Your task to perform on an android device: Open the stopwatch Image 0: 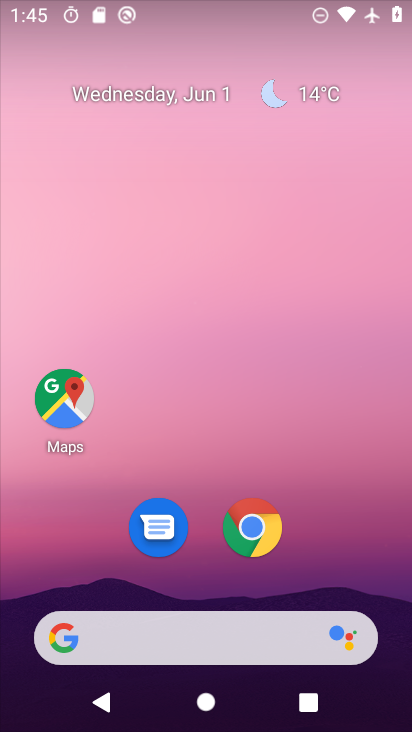
Step 0: drag from (170, 649) to (233, 106)
Your task to perform on an android device: Open the stopwatch Image 1: 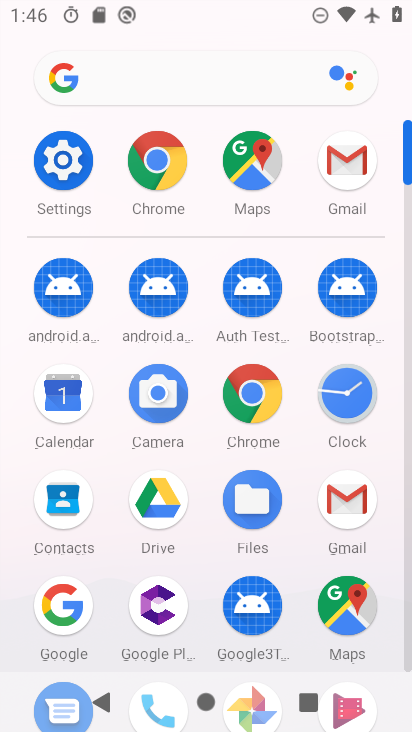
Step 1: click (332, 400)
Your task to perform on an android device: Open the stopwatch Image 2: 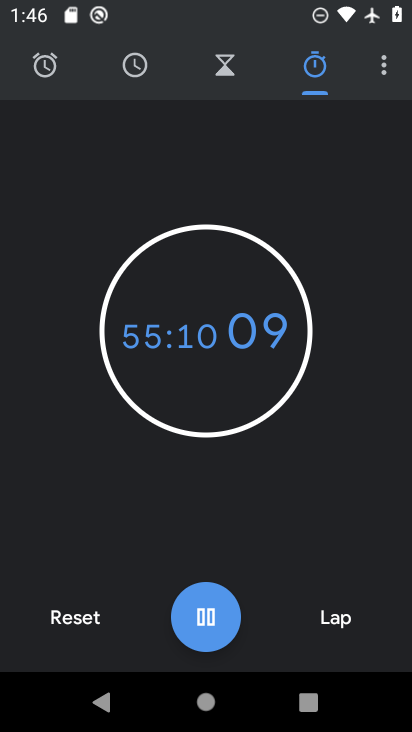
Step 2: click (386, 68)
Your task to perform on an android device: Open the stopwatch Image 3: 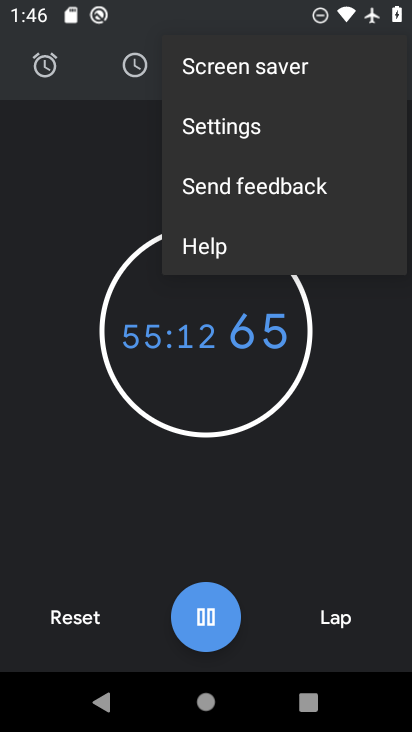
Step 3: task complete